Your task to perform on an android device: Open privacy settings Image 0: 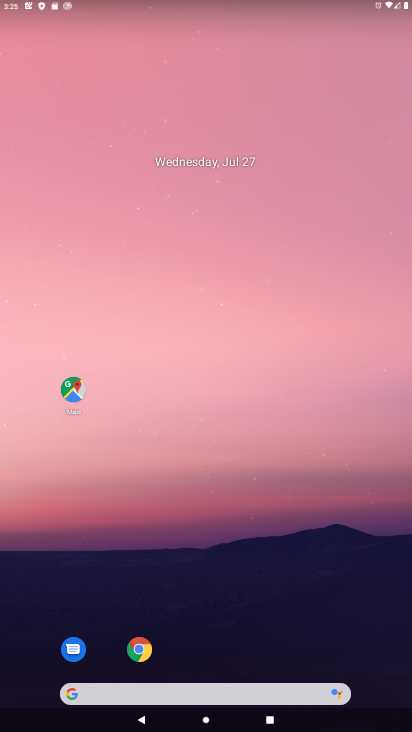
Step 0: drag from (390, 666) to (341, 123)
Your task to perform on an android device: Open privacy settings Image 1: 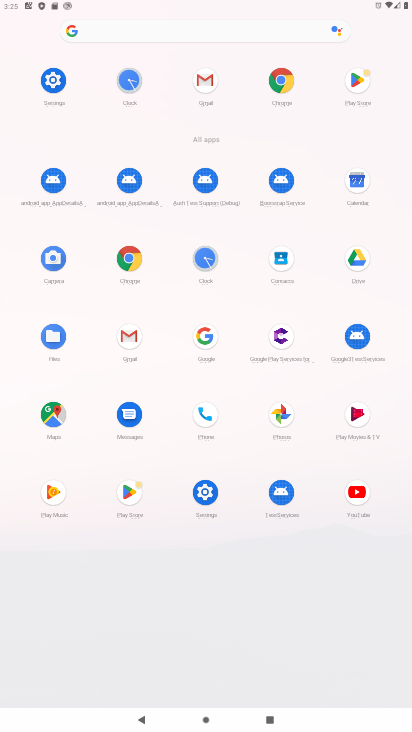
Step 1: click (204, 489)
Your task to perform on an android device: Open privacy settings Image 2: 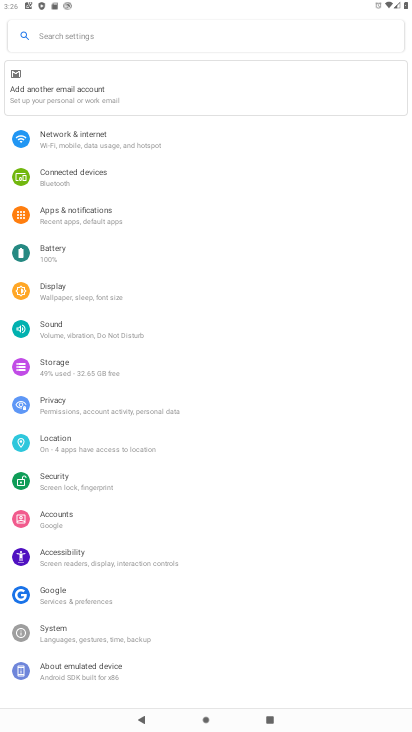
Step 2: click (51, 401)
Your task to perform on an android device: Open privacy settings Image 3: 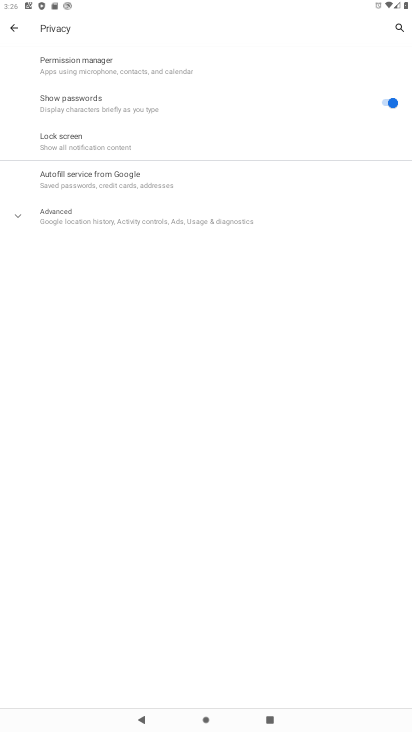
Step 3: click (16, 215)
Your task to perform on an android device: Open privacy settings Image 4: 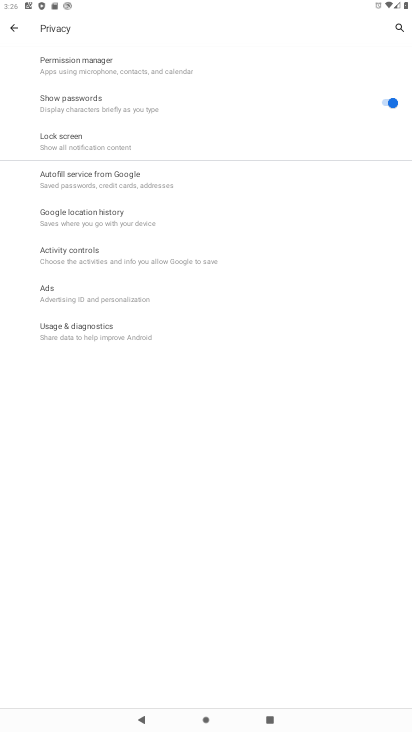
Step 4: task complete